Your task to perform on an android device: Open Yahoo.com Image 0: 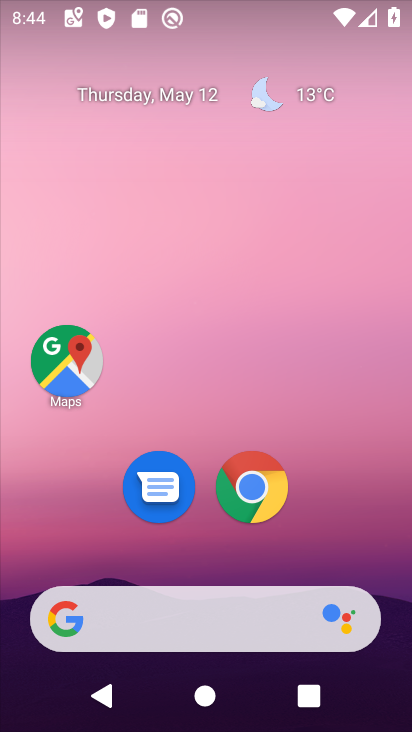
Step 0: click (233, 493)
Your task to perform on an android device: Open Yahoo.com Image 1: 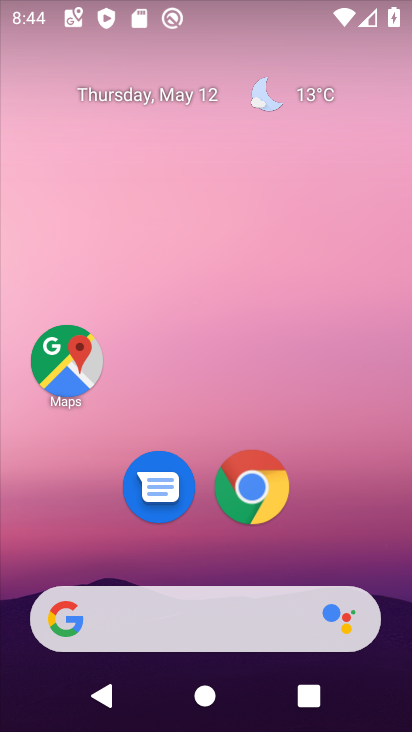
Step 1: click (233, 493)
Your task to perform on an android device: Open Yahoo.com Image 2: 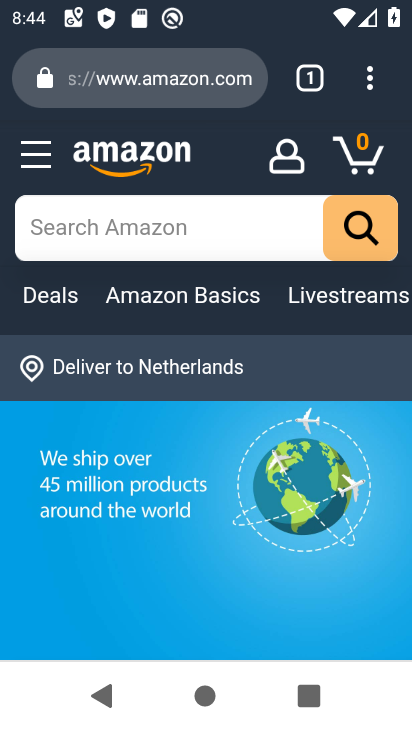
Step 2: click (144, 88)
Your task to perform on an android device: Open Yahoo.com Image 3: 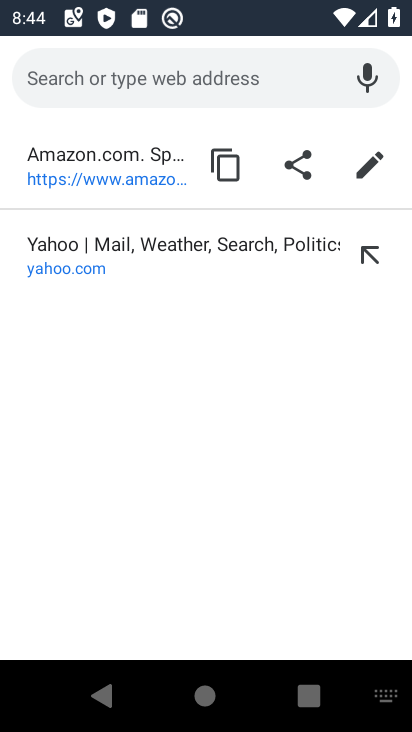
Step 3: click (110, 254)
Your task to perform on an android device: Open Yahoo.com Image 4: 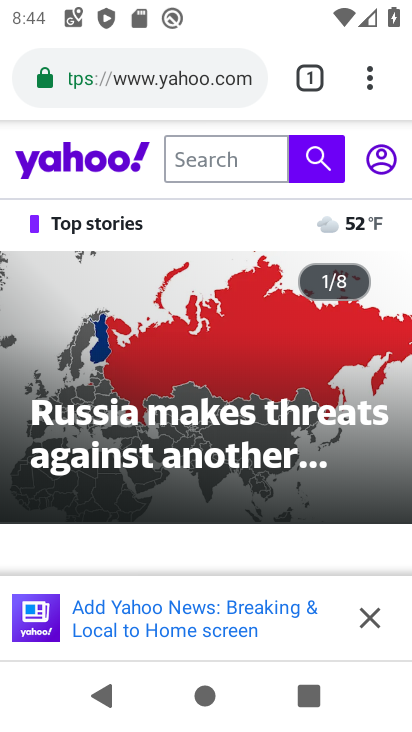
Step 4: task complete